Your task to perform on an android device: Open Youtube and go to the subscriptions tab Image 0: 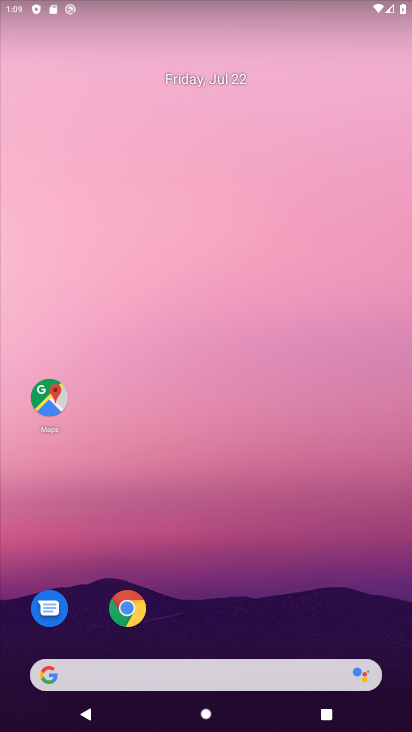
Step 0: drag from (394, 670) to (322, 58)
Your task to perform on an android device: Open Youtube and go to the subscriptions tab Image 1: 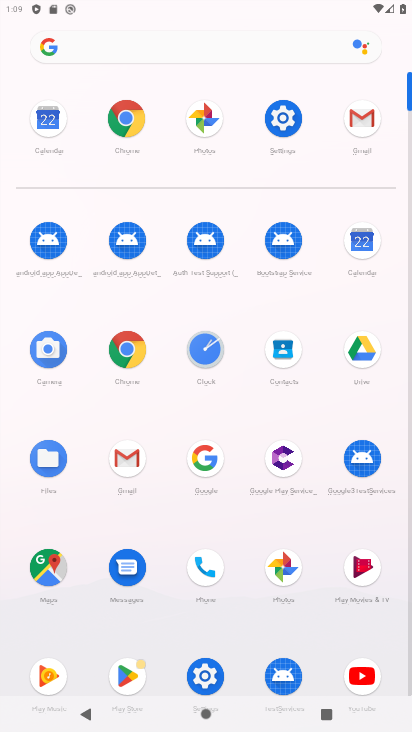
Step 1: click (356, 672)
Your task to perform on an android device: Open Youtube and go to the subscriptions tab Image 2: 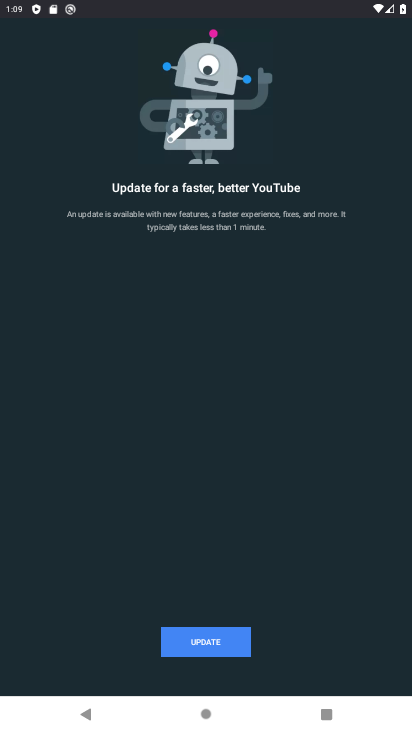
Step 2: press back button
Your task to perform on an android device: Open Youtube and go to the subscriptions tab Image 3: 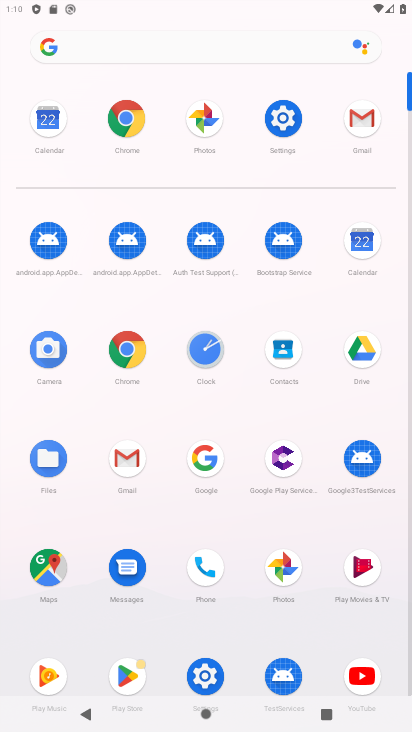
Step 3: click (372, 676)
Your task to perform on an android device: Open Youtube and go to the subscriptions tab Image 4: 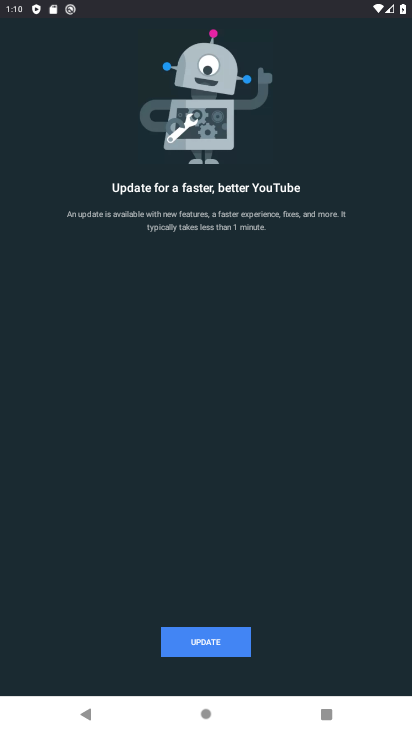
Step 4: click (236, 647)
Your task to perform on an android device: Open Youtube and go to the subscriptions tab Image 5: 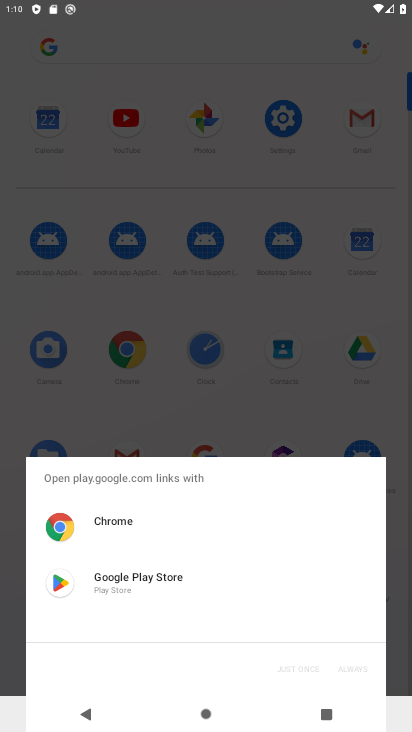
Step 5: click (112, 570)
Your task to perform on an android device: Open Youtube and go to the subscriptions tab Image 6: 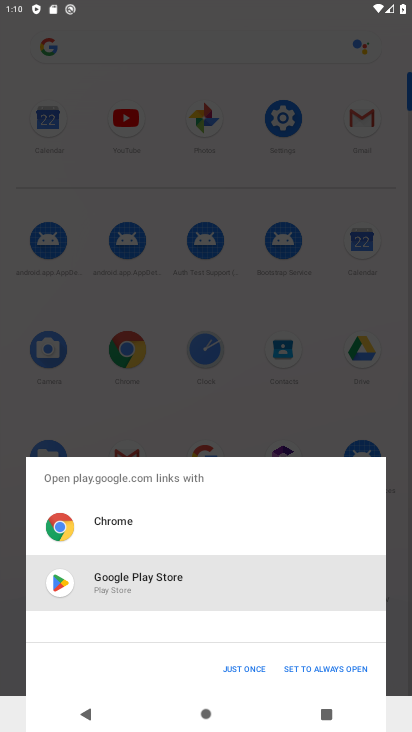
Step 6: click (253, 667)
Your task to perform on an android device: Open Youtube and go to the subscriptions tab Image 7: 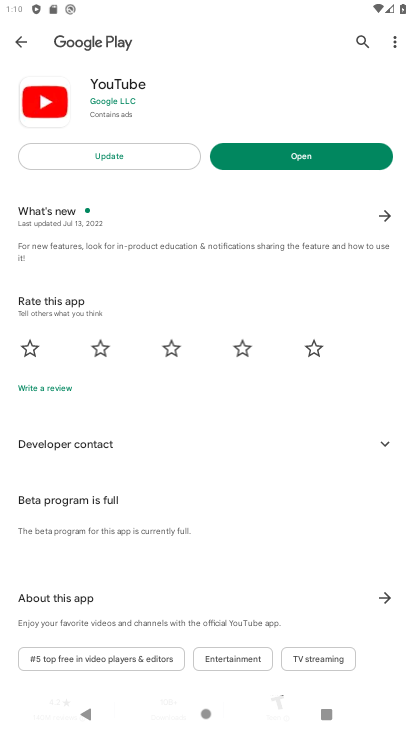
Step 7: click (161, 149)
Your task to perform on an android device: Open Youtube and go to the subscriptions tab Image 8: 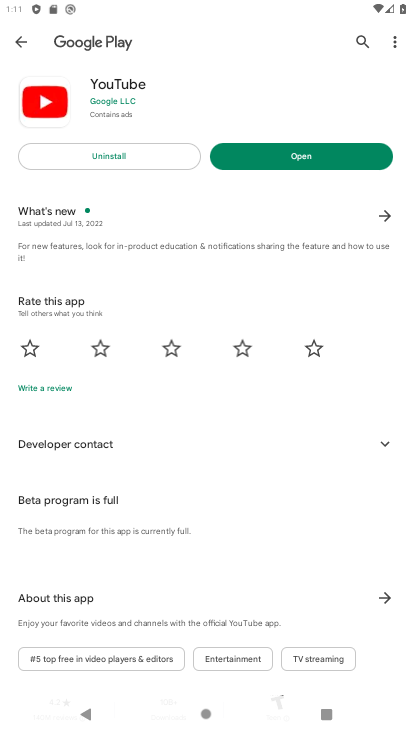
Step 8: click (288, 144)
Your task to perform on an android device: Open Youtube and go to the subscriptions tab Image 9: 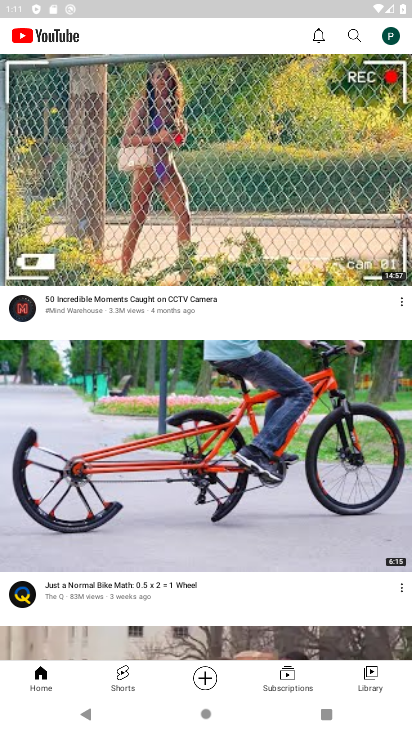
Step 9: click (290, 674)
Your task to perform on an android device: Open Youtube and go to the subscriptions tab Image 10: 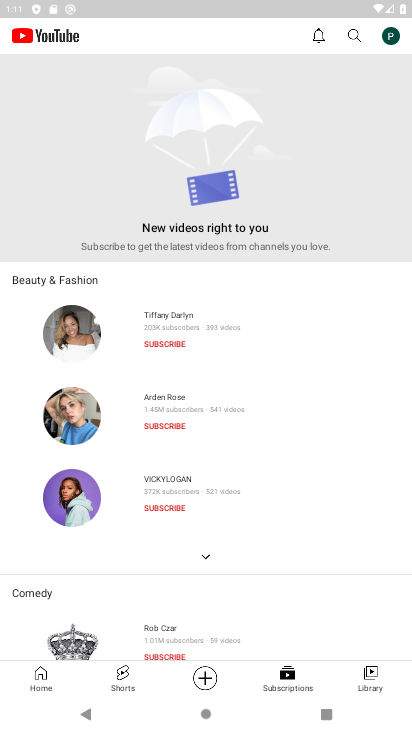
Step 10: click (42, 681)
Your task to perform on an android device: Open Youtube and go to the subscriptions tab Image 11: 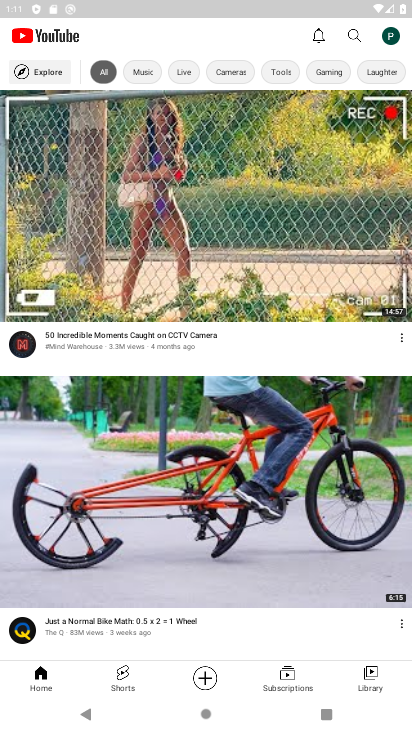
Step 11: click (191, 239)
Your task to perform on an android device: Open Youtube and go to the subscriptions tab Image 12: 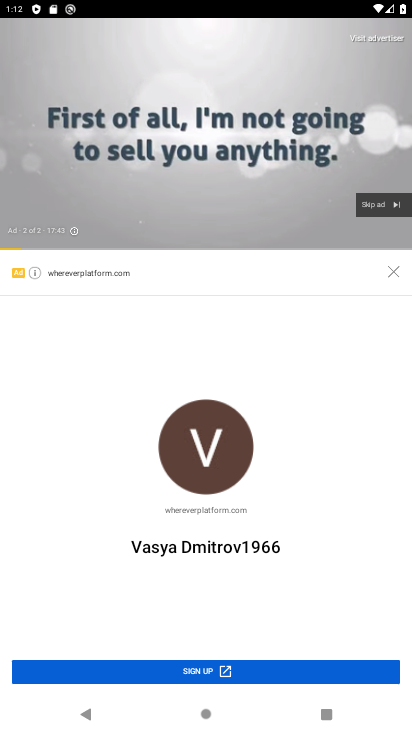
Step 12: task complete